Your task to perform on an android device: see tabs open on other devices in the chrome app Image 0: 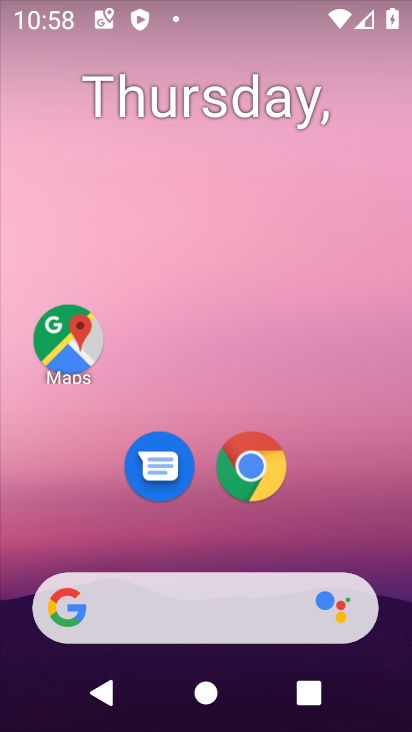
Step 0: click (246, 450)
Your task to perform on an android device: see tabs open on other devices in the chrome app Image 1: 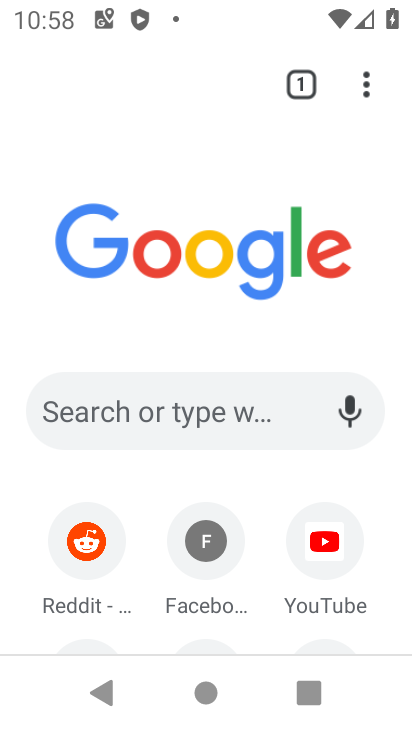
Step 1: click (304, 74)
Your task to perform on an android device: see tabs open on other devices in the chrome app Image 2: 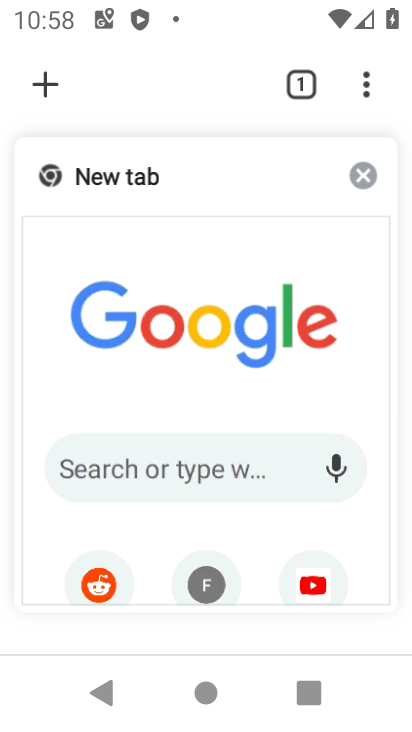
Step 2: task complete